Your task to perform on an android device: Toggle the flashlight Image 0: 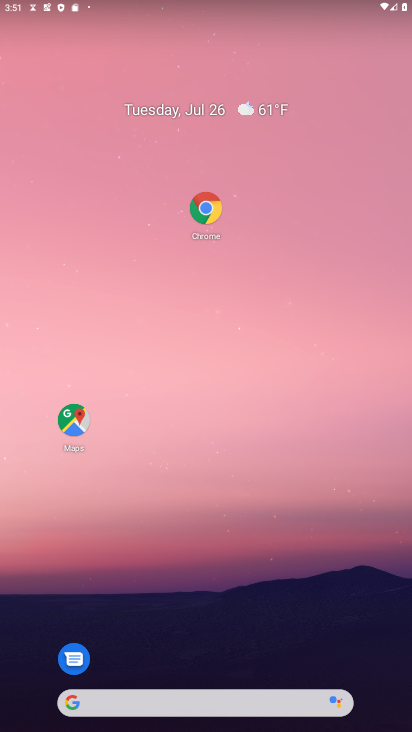
Step 0: click (149, 665)
Your task to perform on an android device: Toggle the flashlight Image 1: 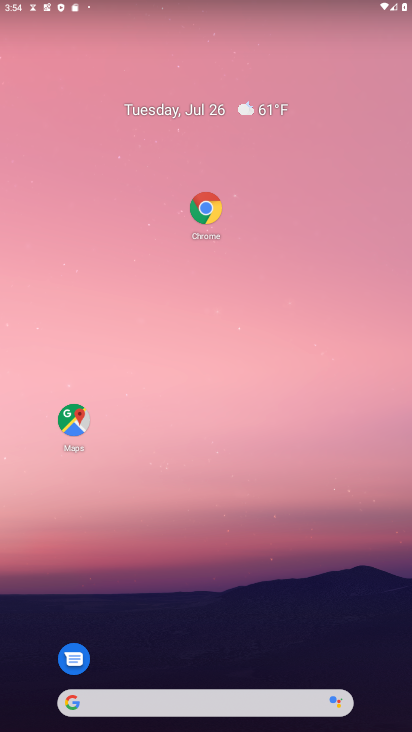
Step 1: task complete